Your task to perform on an android device: check battery use Image 0: 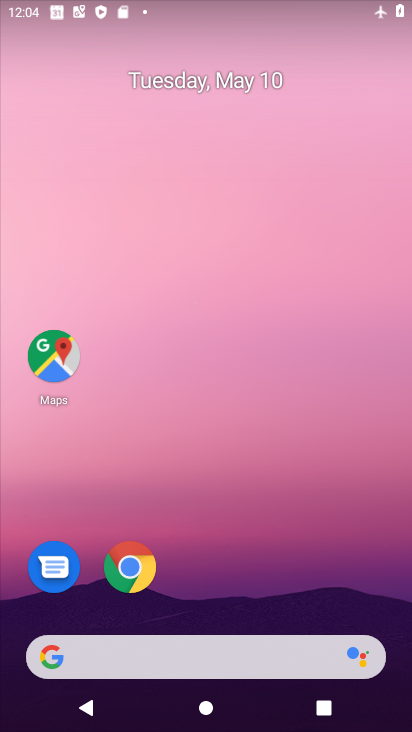
Step 0: drag from (331, 604) to (286, 41)
Your task to perform on an android device: check battery use Image 1: 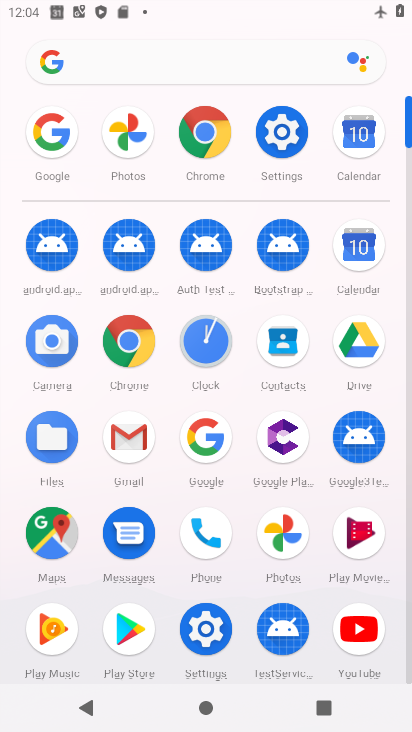
Step 1: click (197, 644)
Your task to perform on an android device: check battery use Image 2: 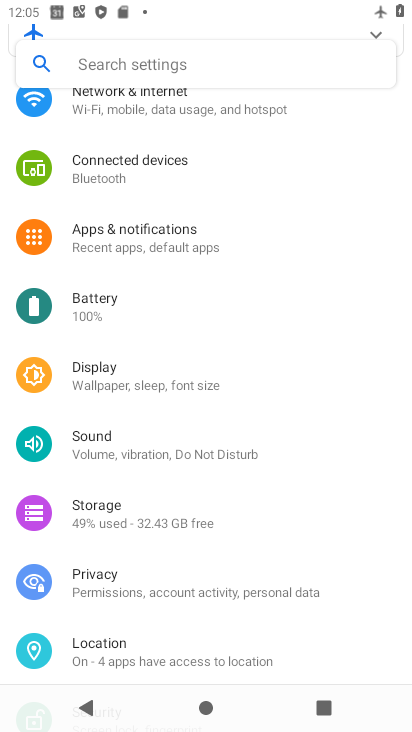
Step 2: click (110, 310)
Your task to perform on an android device: check battery use Image 3: 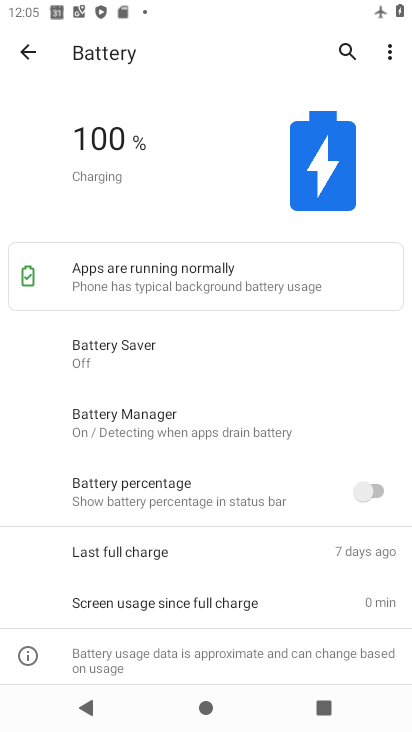
Step 3: task complete